Your task to perform on an android device: delete a single message in the gmail app Image 0: 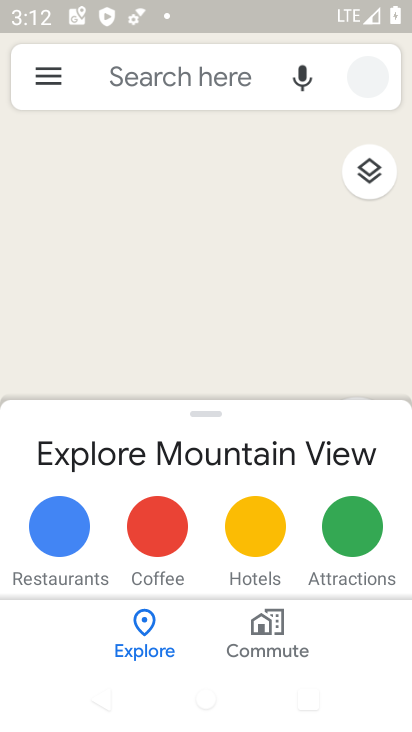
Step 0: press home button
Your task to perform on an android device: delete a single message in the gmail app Image 1: 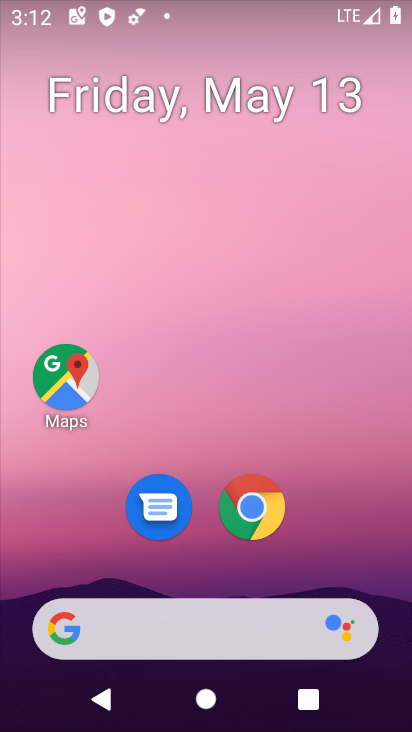
Step 1: drag from (342, 512) to (255, 117)
Your task to perform on an android device: delete a single message in the gmail app Image 2: 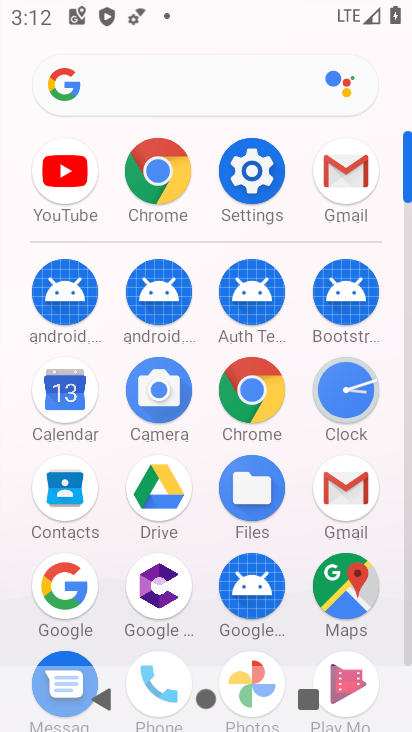
Step 2: click (334, 181)
Your task to perform on an android device: delete a single message in the gmail app Image 3: 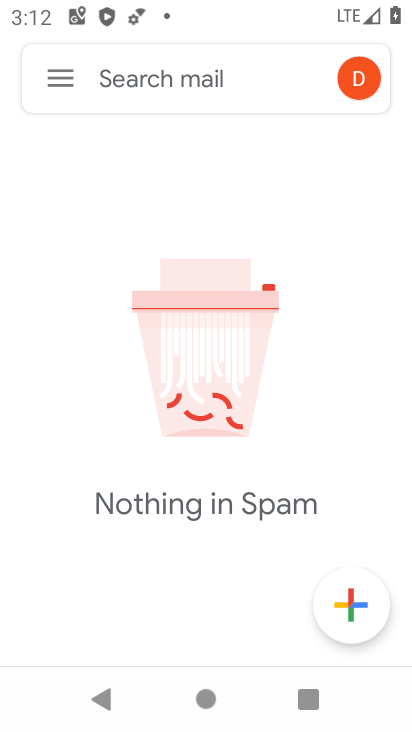
Step 3: click (69, 73)
Your task to perform on an android device: delete a single message in the gmail app Image 4: 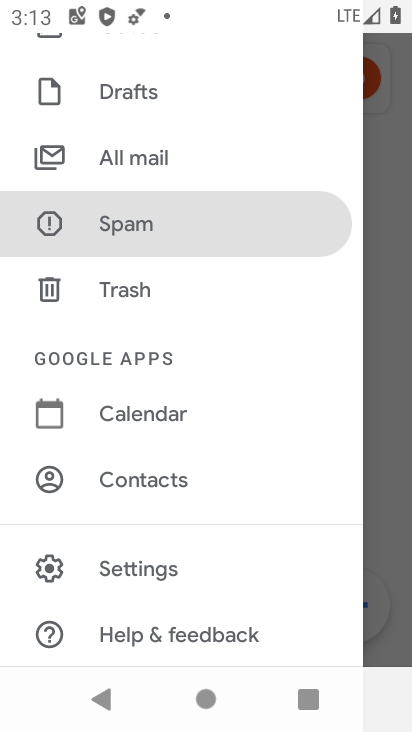
Step 4: drag from (227, 499) to (266, 142)
Your task to perform on an android device: delete a single message in the gmail app Image 5: 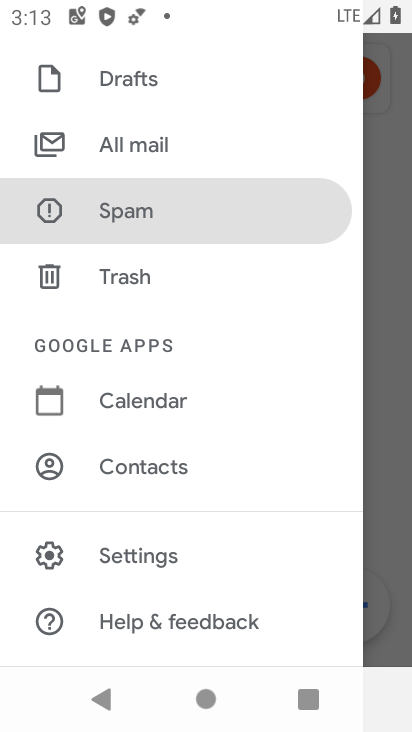
Step 5: click (399, 226)
Your task to perform on an android device: delete a single message in the gmail app Image 6: 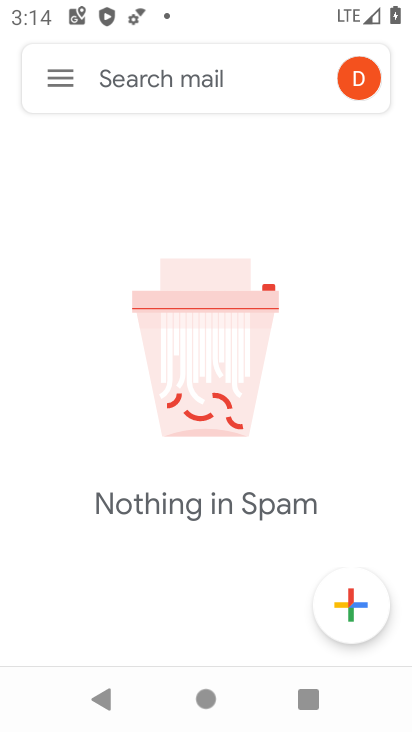
Step 6: task complete